Your task to perform on an android device: change your default location settings in chrome Image 0: 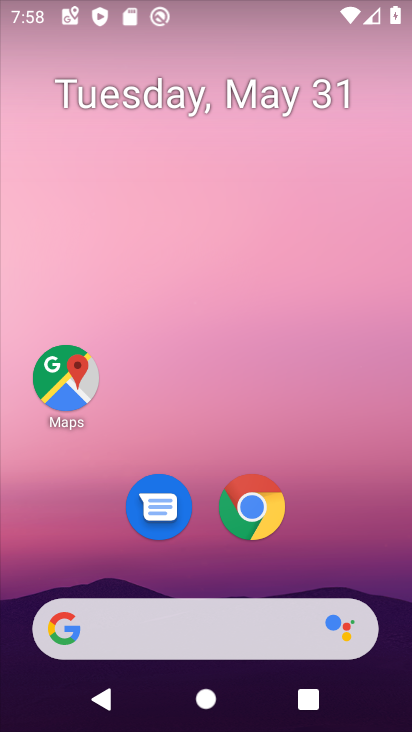
Step 0: press home button
Your task to perform on an android device: change your default location settings in chrome Image 1: 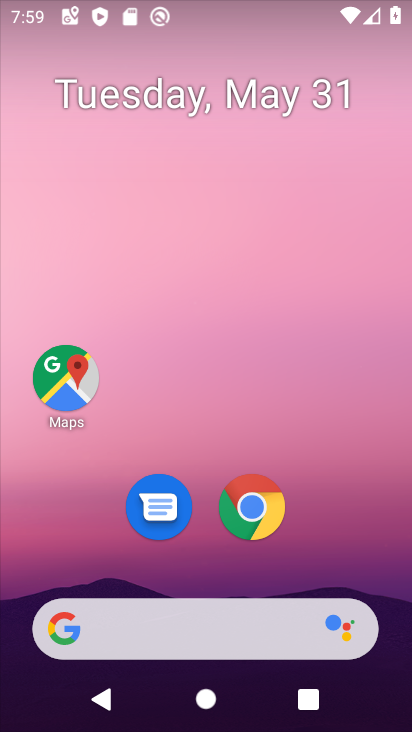
Step 1: click (253, 506)
Your task to perform on an android device: change your default location settings in chrome Image 2: 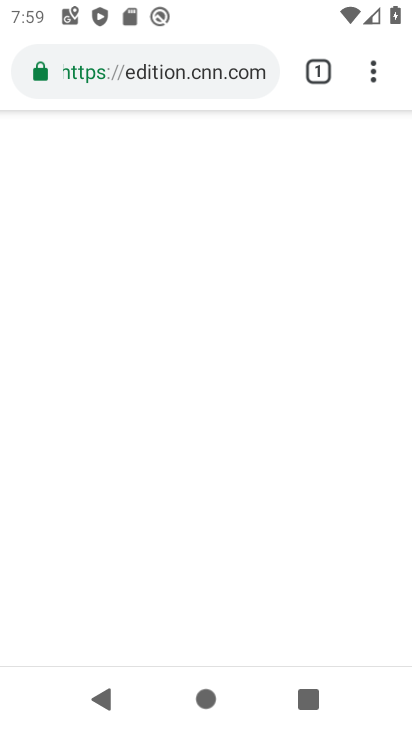
Step 2: click (375, 75)
Your task to perform on an android device: change your default location settings in chrome Image 3: 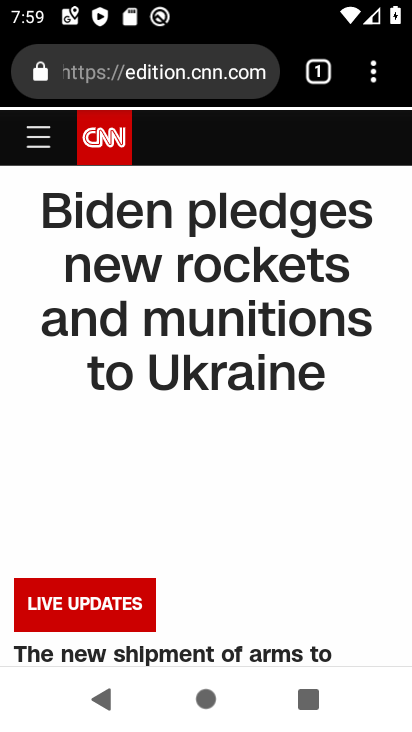
Step 3: click (390, 82)
Your task to perform on an android device: change your default location settings in chrome Image 4: 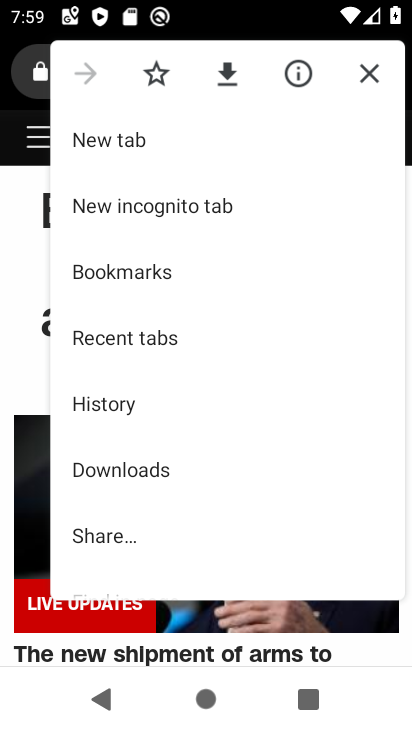
Step 4: drag from (118, 521) to (297, 70)
Your task to perform on an android device: change your default location settings in chrome Image 5: 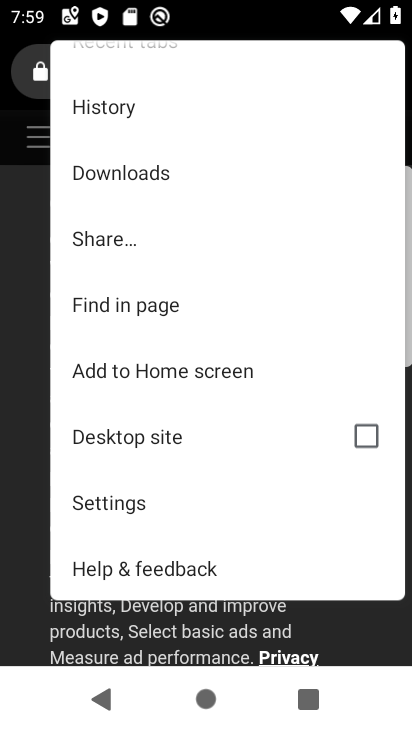
Step 5: click (125, 498)
Your task to perform on an android device: change your default location settings in chrome Image 6: 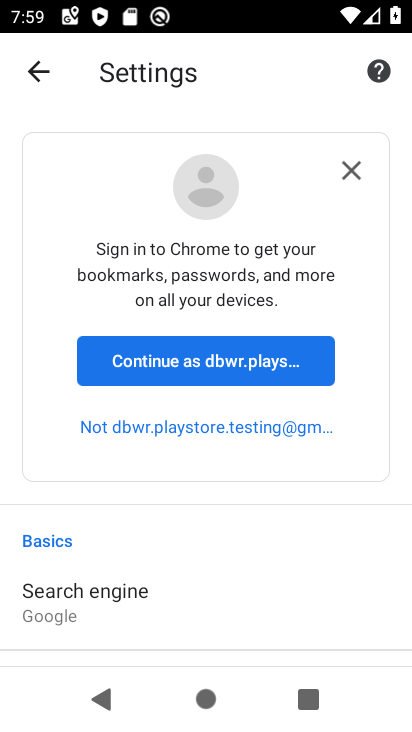
Step 6: click (356, 169)
Your task to perform on an android device: change your default location settings in chrome Image 7: 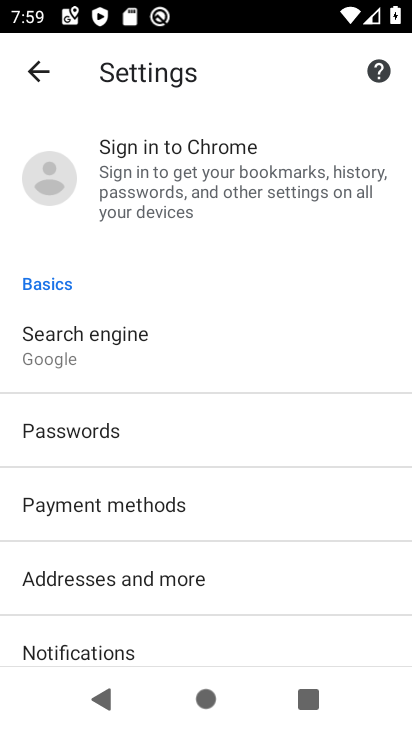
Step 7: click (96, 347)
Your task to perform on an android device: change your default location settings in chrome Image 8: 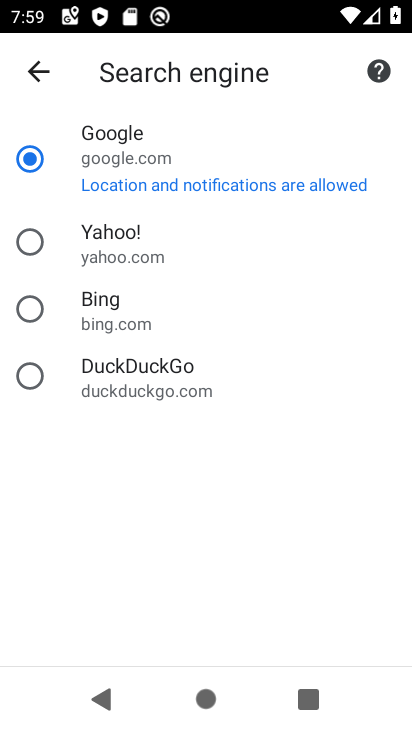
Step 8: task complete